Your task to perform on an android device: toggle wifi Image 0: 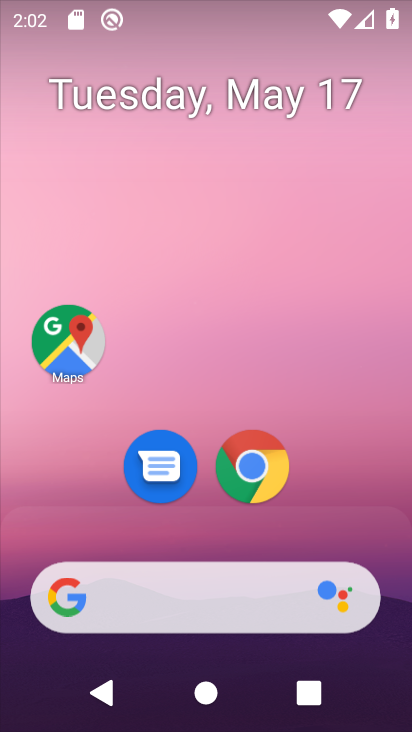
Step 0: drag from (326, 446) to (326, 5)
Your task to perform on an android device: toggle wifi Image 1: 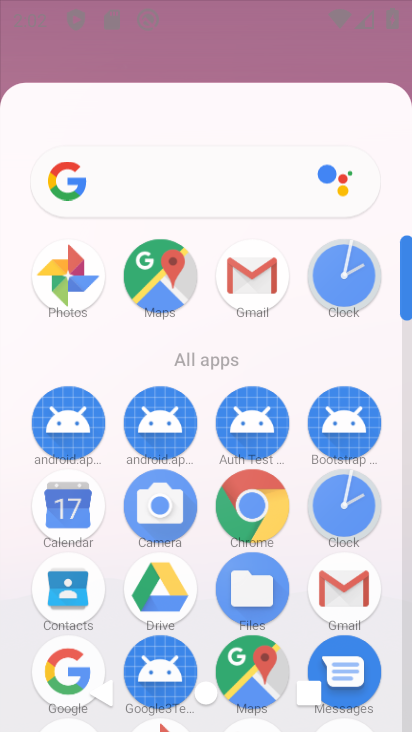
Step 1: drag from (337, 455) to (314, 0)
Your task to perform on an android device: toggle wifi Image 2: 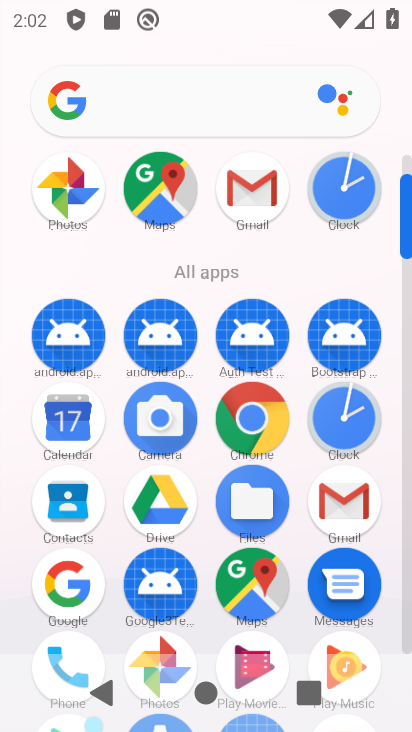
Step 2: drag from (294, 562) to (316, 186)
Your task to perform on an android device: toggle wifi Image 3: 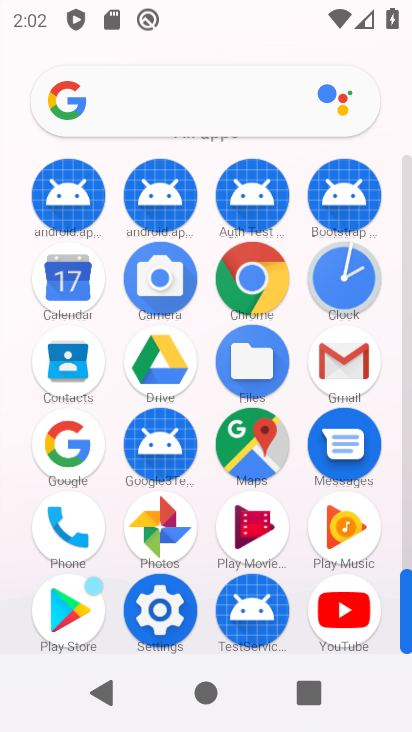
Step 3: click (163, 614)
Your task to perform on an android device: toggle wifi Image 4: 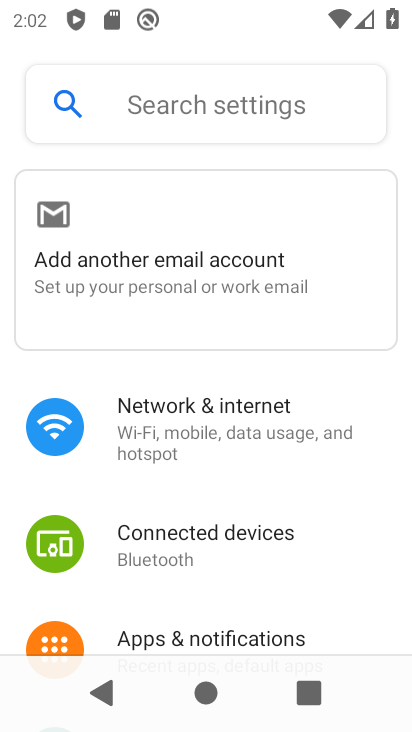
Step 4: click (194, 411)
Your task to perform on an android device: toggle wifi Image 5: 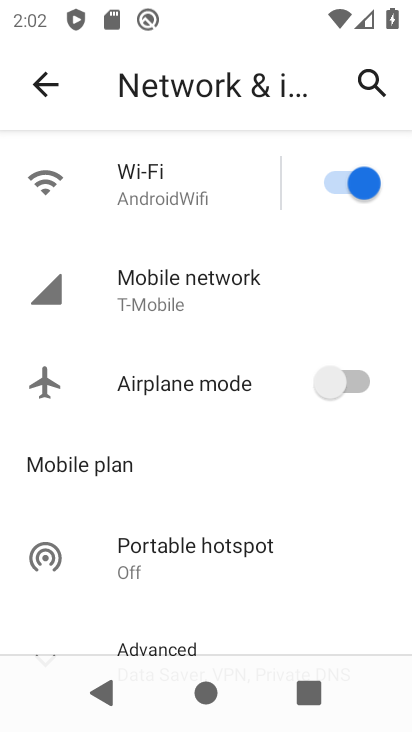
Step 5: click (360, 184)
Your task to perform on an android device: toggle wifi Image 6: 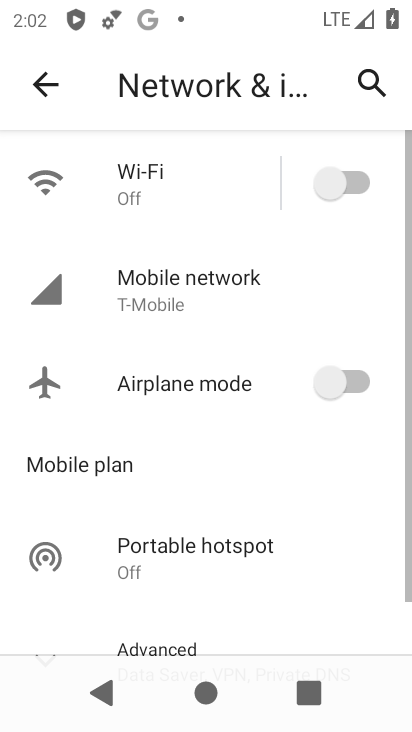
Step 6: task complete